Your task to perform on an android device: delete location history Image 0: 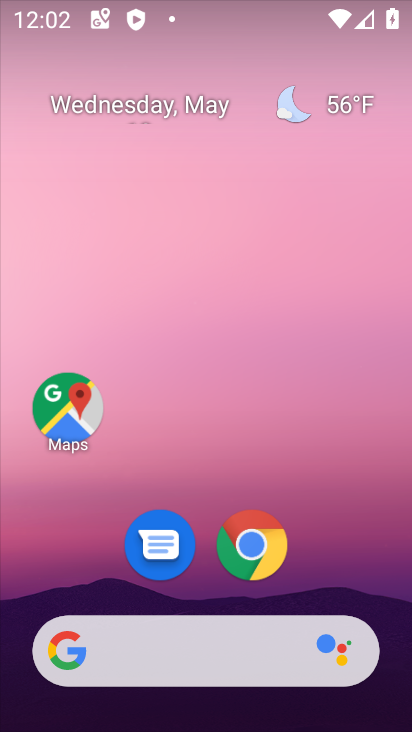
Step 0: drag from (233, 596) to (256, 194)
Your task to perform on an android device: delete location history Image 1: 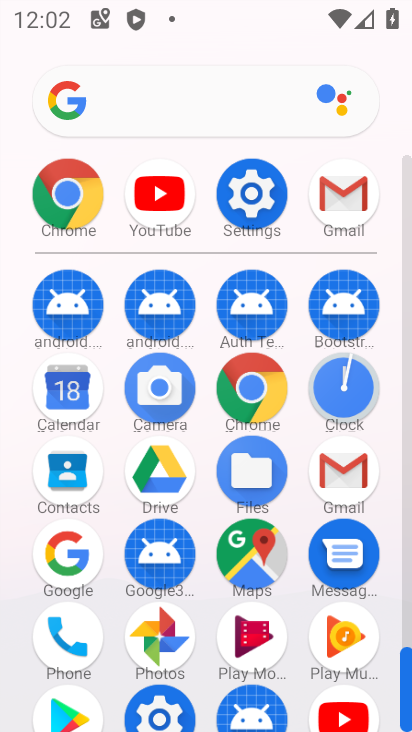
Step 1: click (249, 198)
Your task to perform on an android device: delete location history Image 2: 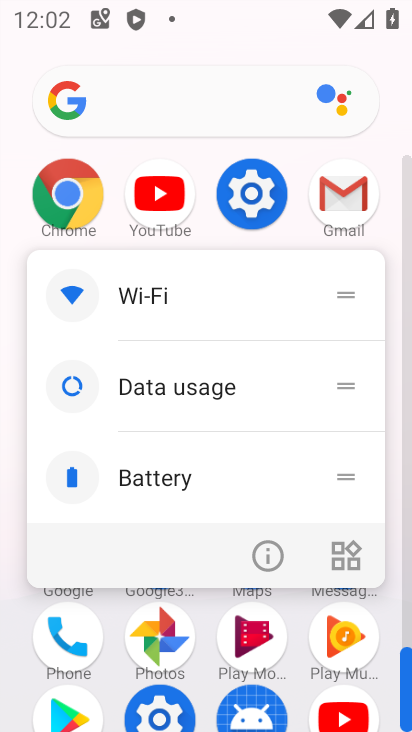
Step 2: click (249, 198)
Your task to perform on an android device: delete location history Image 3: 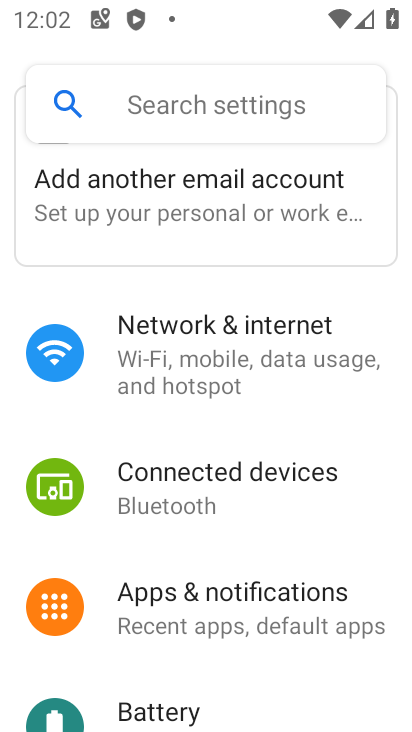
Step 3: drag from (182, 576) to (204, 322)
Your task to perform on an android device: delete location history Image 4: 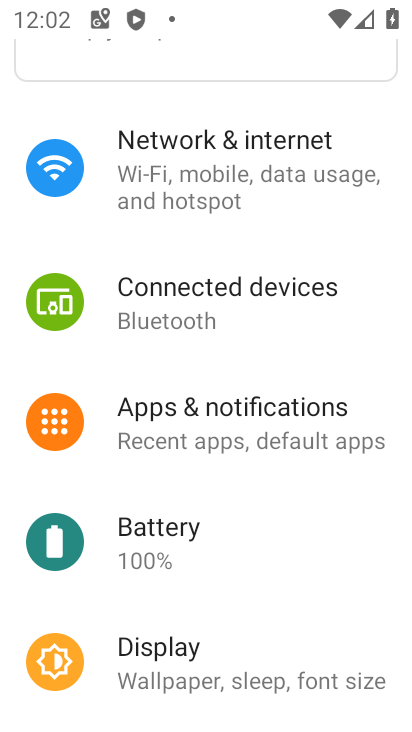
Step 4: drag from (197, 500) to (240, 133)
Your task to perform on an android device: delete location history Image 5: 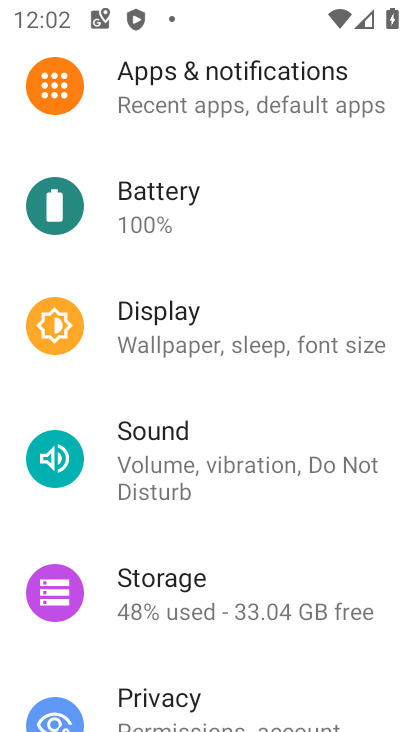
Step 5: drag from (234, 479) to (268, 185)
Your task to perform on an android device: delete location history Image 6: 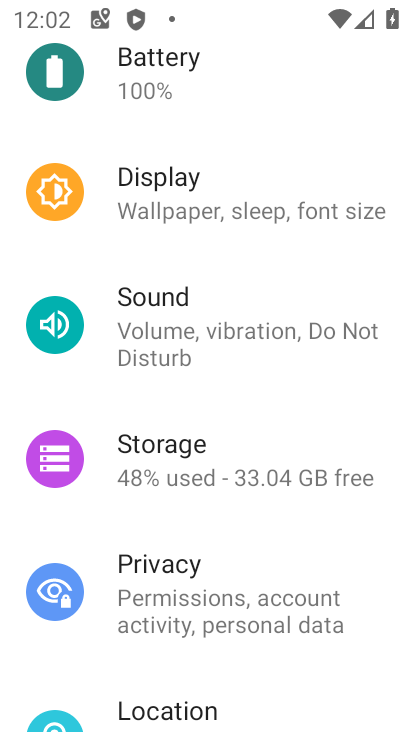
Step 6: drag from (223, 549) to (241, 264)
Your task to perform on an android device: delete location history Image 7: 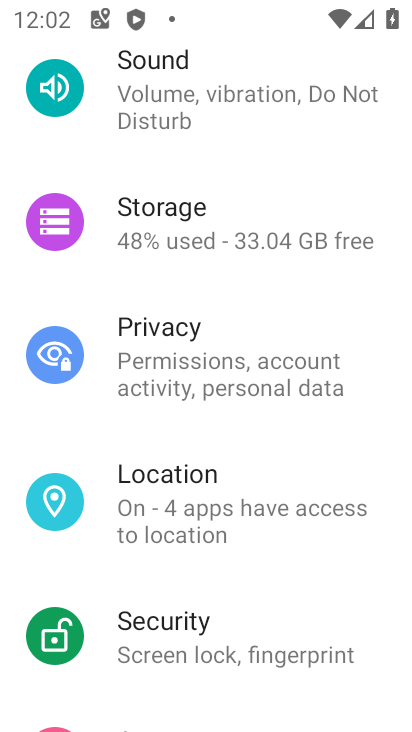
Step 7: click (222, 529)
Your task to perform on an android device: delete location history Image 8: 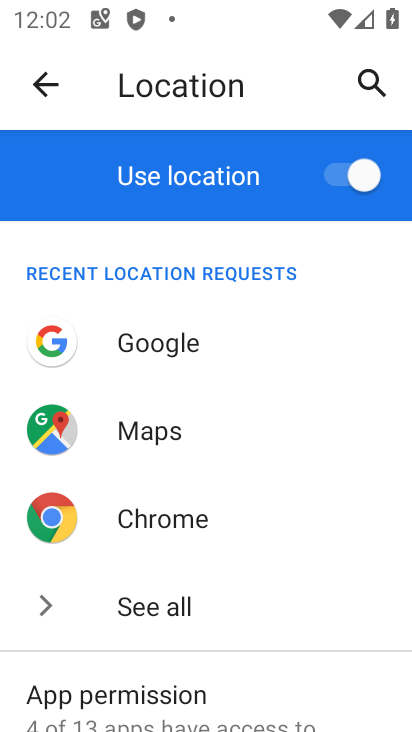
Step 8: drag from (223, 530) to (265, 144)
Your task to perform on an android device: delete location history Image 9: 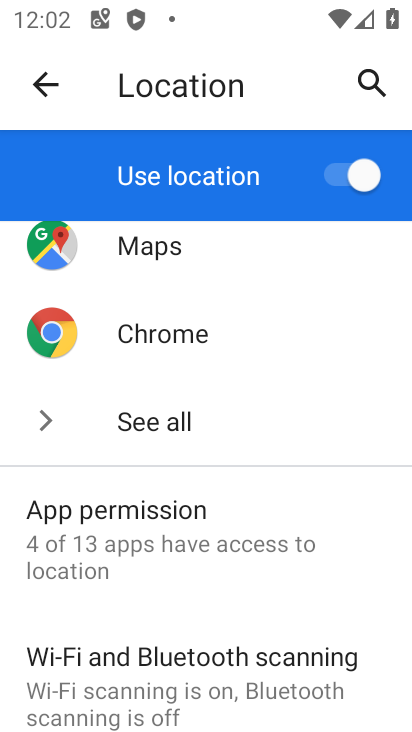
Step 9: drag from (170, 590) to (176, 450)
Your task to perform on an android device: delete location history Image 10: 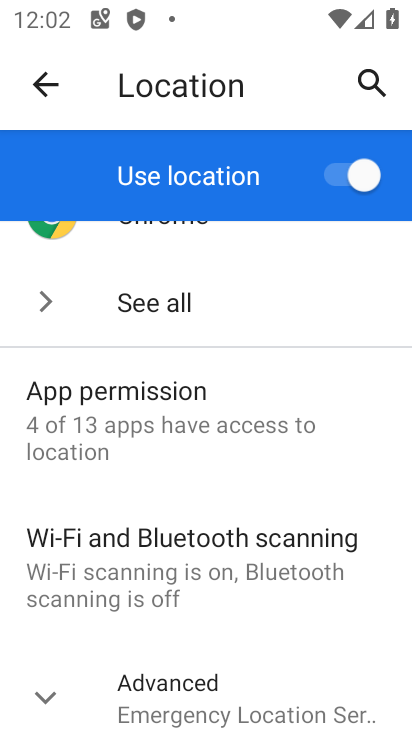
Step 10: click (178, 691)
Your task to perform on an android device: delete location history Image 11: 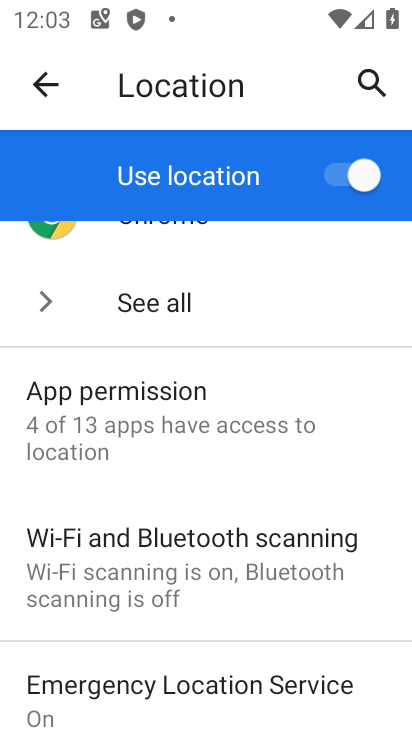
Step 11: drag from (178, 691) to (257, 462)
Your task to perform on an android device: delete location history Image 12: 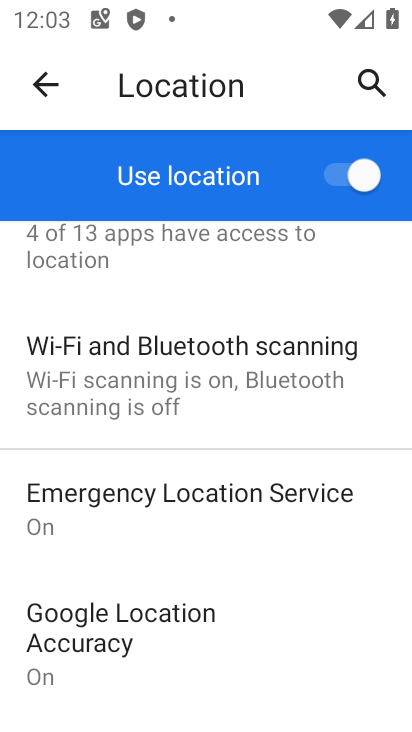
Step 12: drag from (211, 657) to (297, 361)
Your task to perform on an android device: delete location history Image 13: 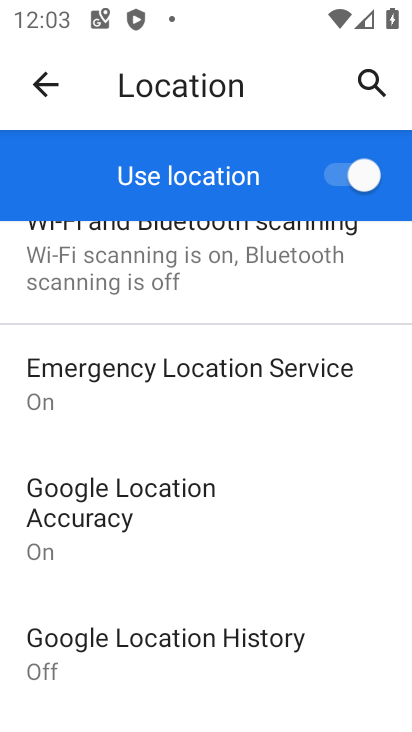
Step 13: click (217, 645)
Your task to perform on an android device: delete location history Image 14: 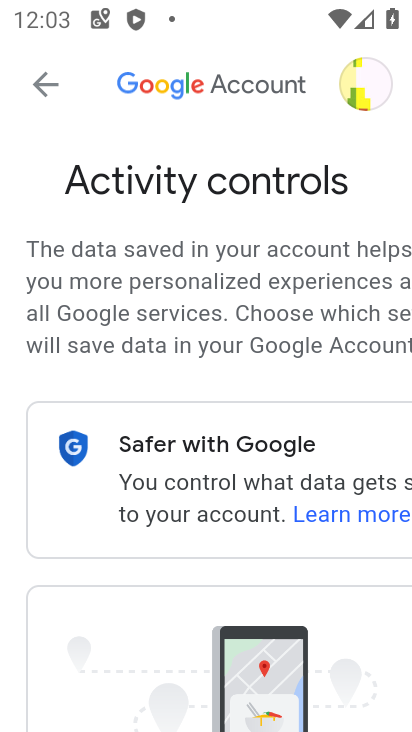
Step 14: drag from (280, 680) to (131, 414)
Your task to perform on an android device: delete location history Image 15: 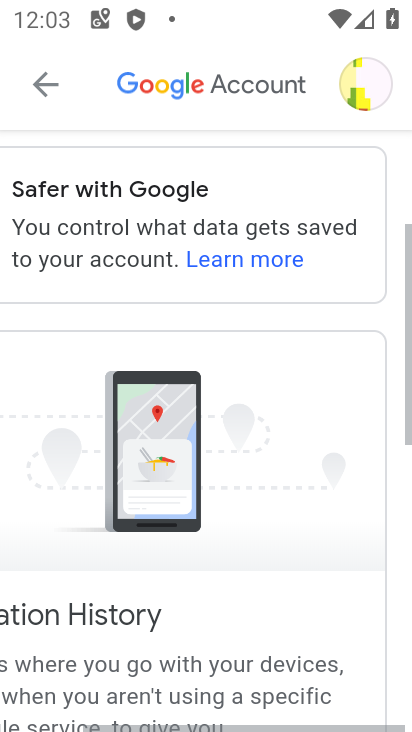
Step 15: drag from (291, 670) to (199, 391)
Your task to perform on an android device: delete location history Image 16: 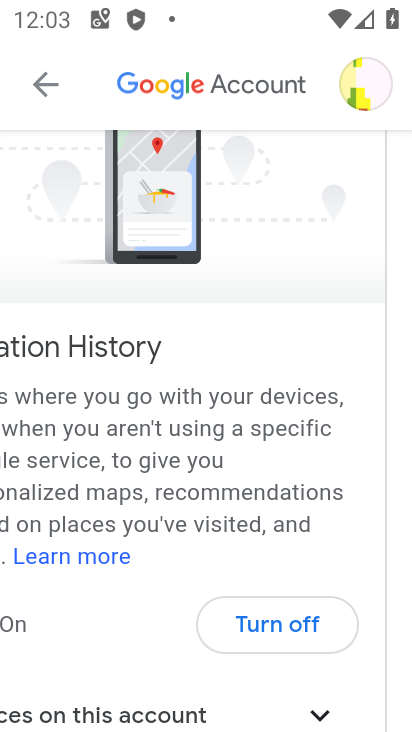
Step 16: drag from (301, 644) to (280, 525)
Your task to perform on an android device: delete location history Image 17: 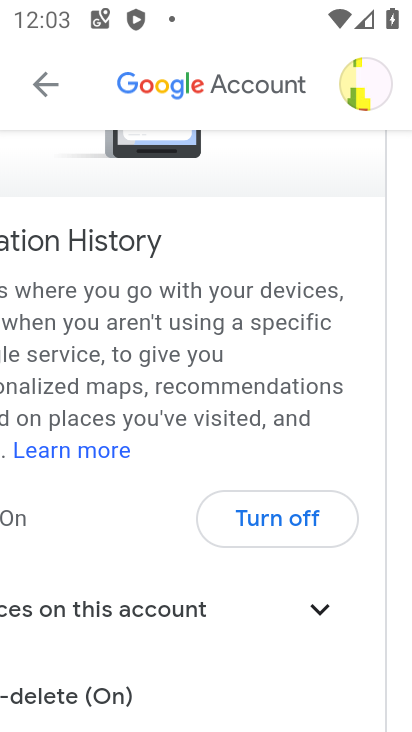
Step 17: drag from (255, 653) to (283, 460)
Your task to perform on an android device: delete location history Image 18: 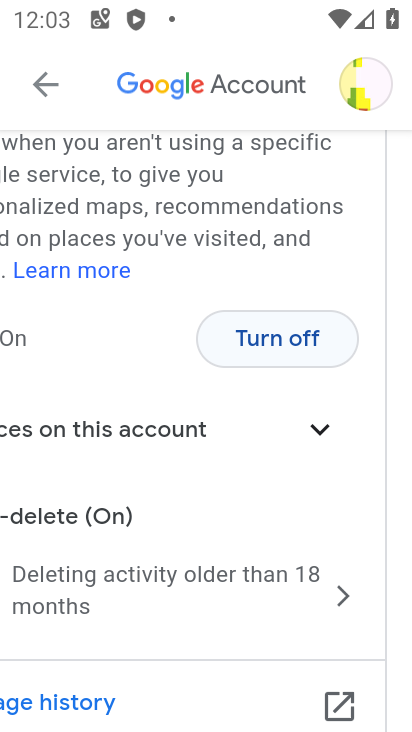
Step 18: click (210, 611)
Your task to perform on an android device: delete location history Image 19: 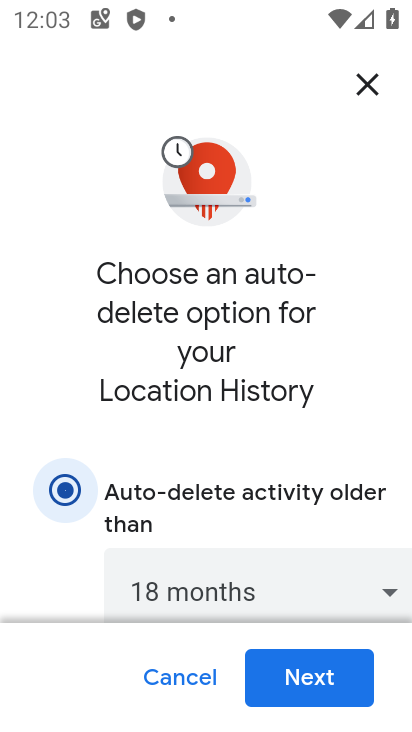
Step 19: click (319, 685)
Your task to perform on an android device: delete location history Image 20: 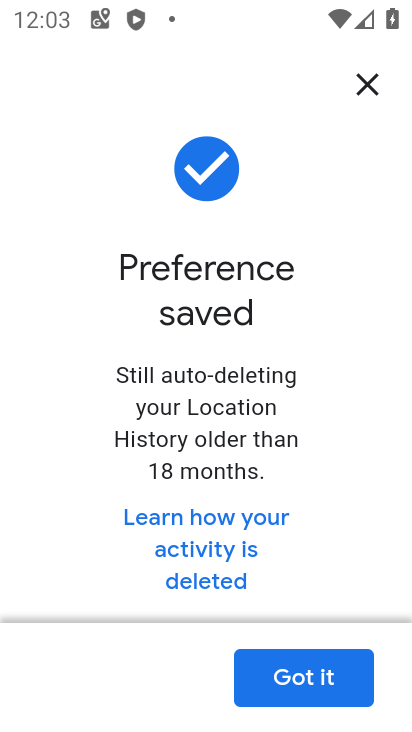
Step 20: click (282, 685)
Your task to perform on an android device: delete location history Image 21: 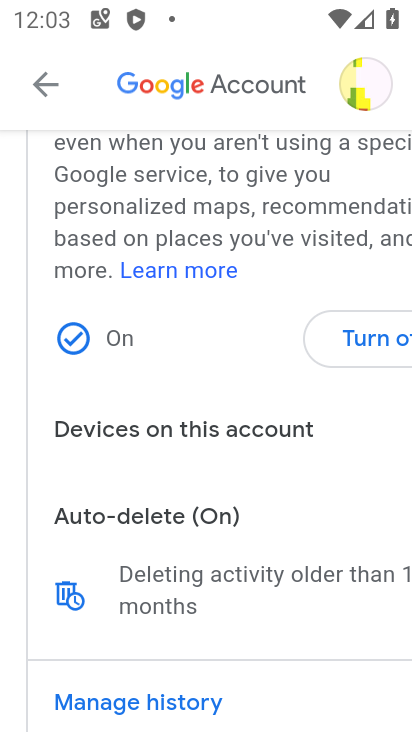
Step 21: task complete